Your task to perform on an android device: turn smart compose on in the gmail app Image 0: 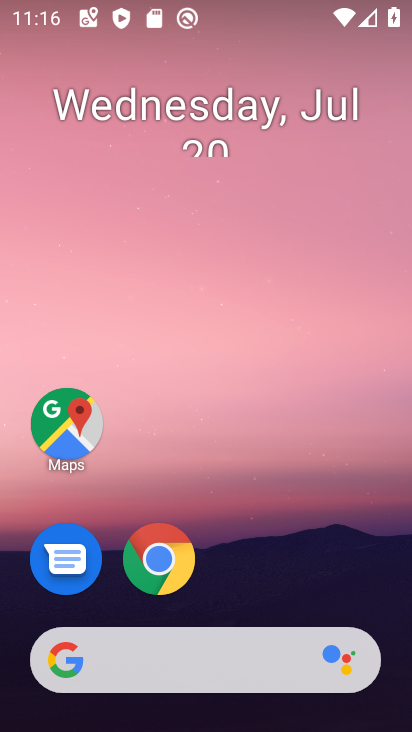
Step 0: drag from (205, 603) to (217, 131)
Your task to perform on an android device: turn smart compose on in the gmail app Image 1: 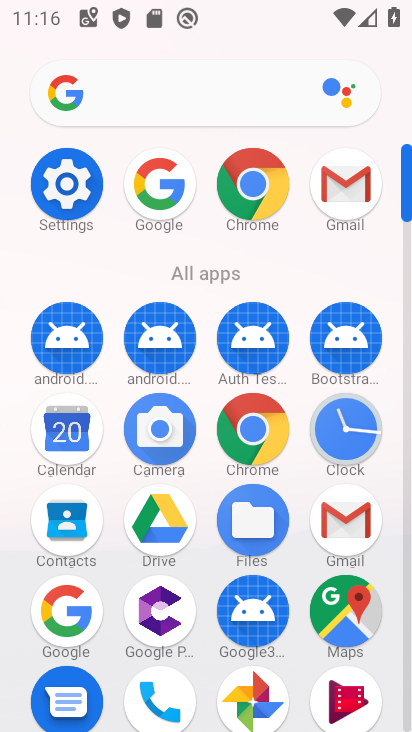
Step 1: click (361, 528)
Your task to perform on an android device: turn smart compose on in the gmail app Image 2: 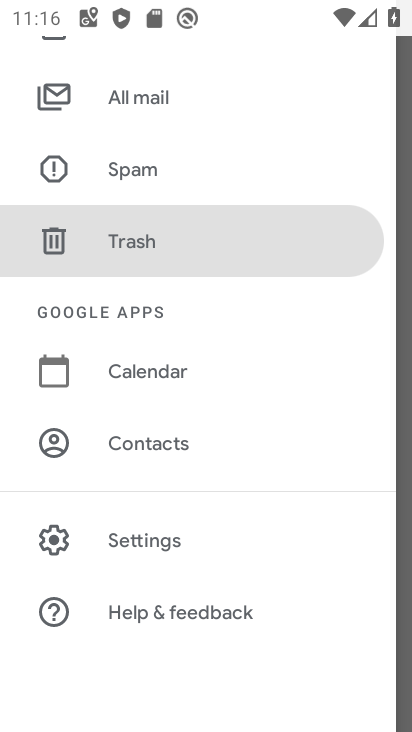
Step 2: click (141, 547)
Your task to perform on an android device: turn smart compose on in the gmail app Image 3: 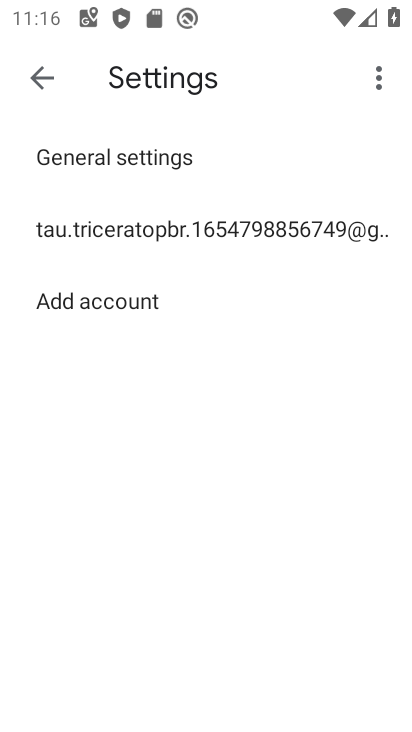
Step 3: click (251, 218)
Your task to perform on an android device: turn smart compose on in the gmail app Image 4: 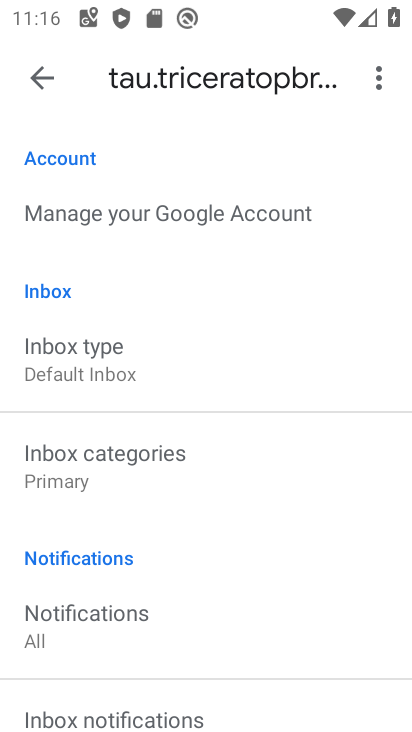
Step 4: task complete